Your task to perform on an android device: open the mobile data screen to see how much data has been used Image 0: 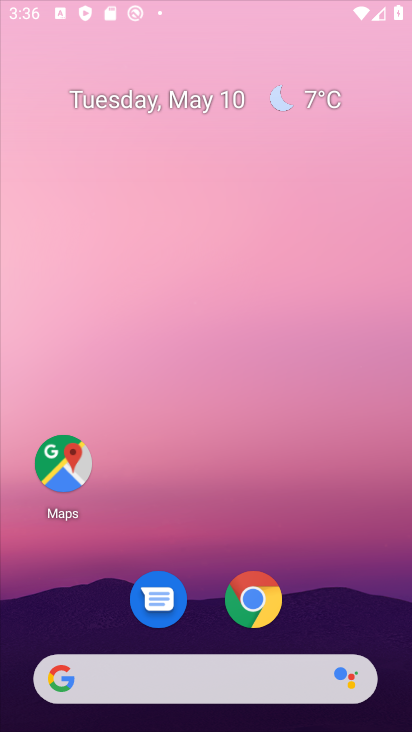
Step 0: click (290, 38)
Your task to perform on an android device: open the mobile data screen to see how much data has been used Image 1: 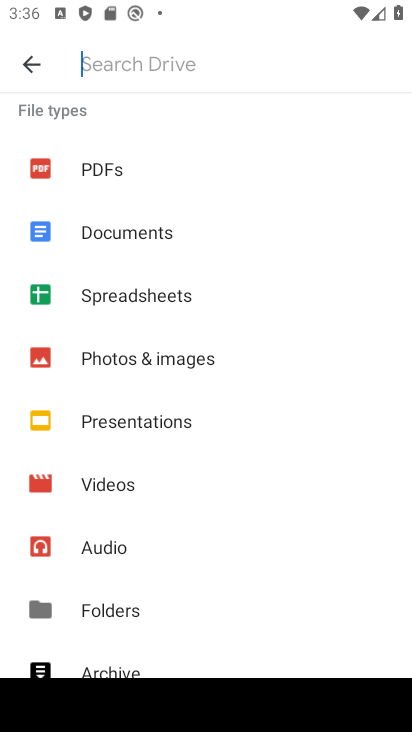
Step 1: click (27, 66)
Your task to perform on an android device: open the mobile data screen to see how much data has been used Image 2: 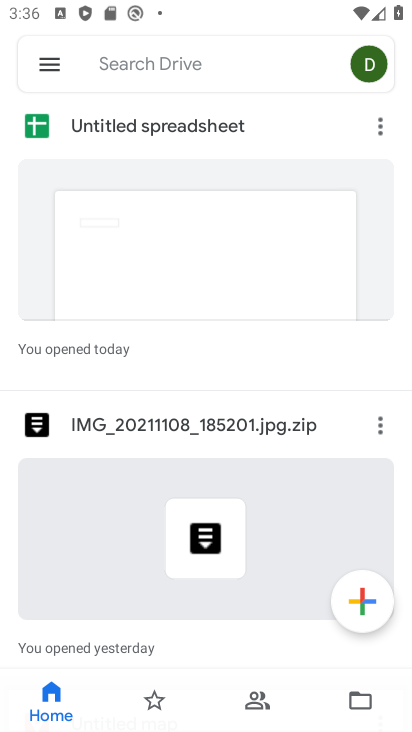
Step 2: press home button
Your task to perform on an android device: open the mobile data screen to see how much data has been used Image 3: 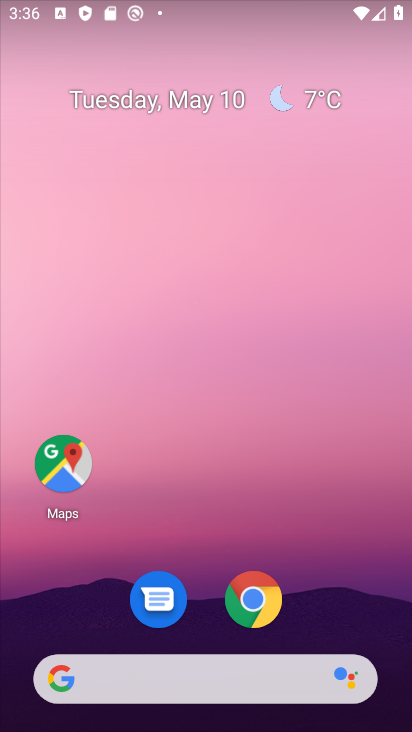
Step 3: drag from (192, 638) to (222, 237)
Your task to perform on an android device: open the mobile data screen to see how much data has been used Image 4: 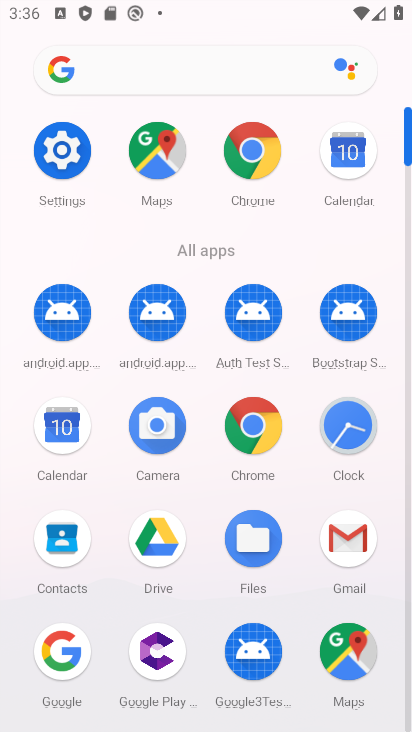
Step 4: click (60, 162)
Your task to perform on an android device: open the mobile data screen to see how much data has been used Image 5: 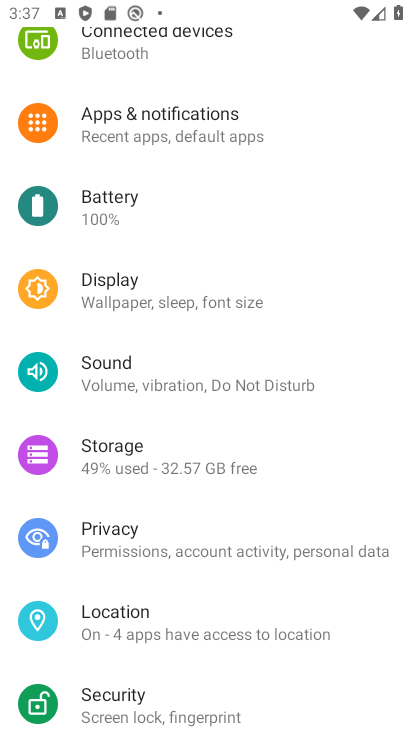
Step 5: drag from (202, 271) to (184, 555)
Your task to perform on an android device: open the mobile data screen to see how much data has been used Image 6: 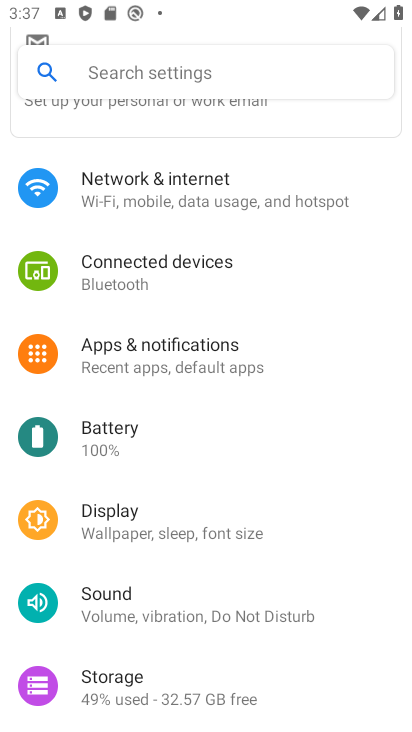
Step 6: click (232, 187)
Your task to perform on an android device: open the mobile data screen to see how much data has been used Image 7: 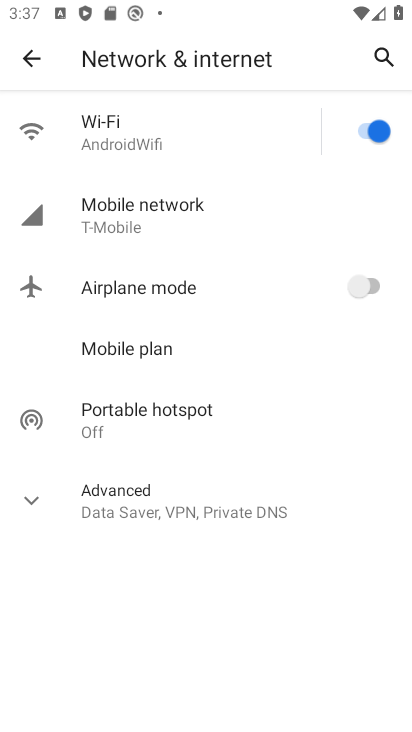
Step 7: click (186, 210)
Your task to perform on an android device: open the mobile data screen to see how much data has been used Image 8: 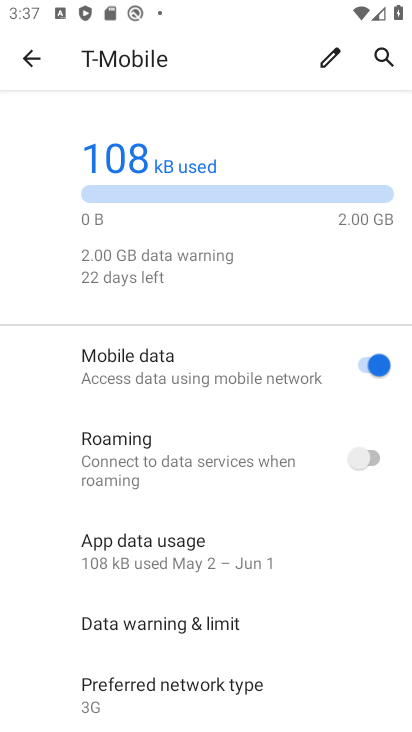
Step 8: task complete